Your task to perform on an android device: turn notification dots on Image 0: 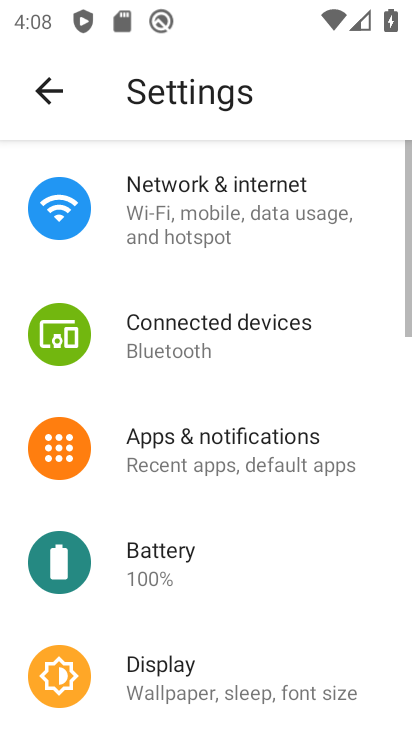
Step 0: click (264, 462)
Your task to perform on an android device: turn notification dots on Image 1: 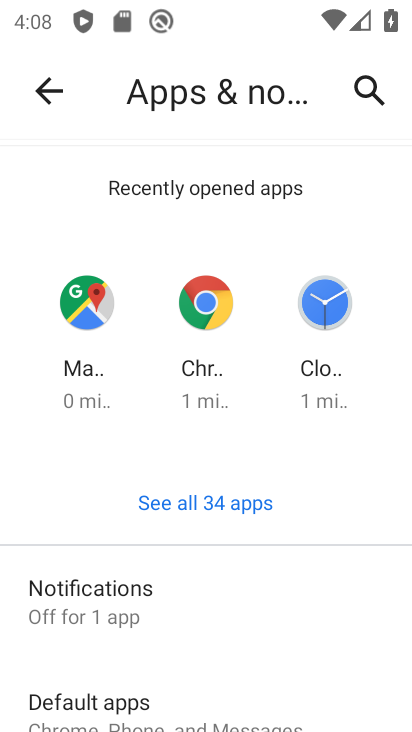
Step 1: click (196, 605)
Your task to perform on an android device: turn notification dots on Image 2: 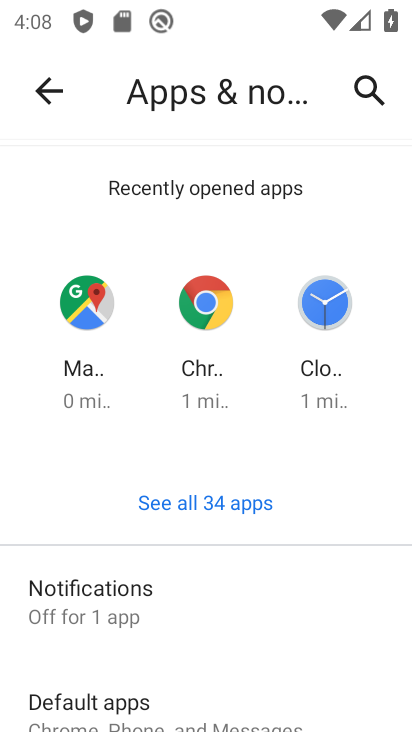
Step 2: drag from (195, 595) to (255, 253)
Your task to perform on an android device: turn notification dots on Image 3: 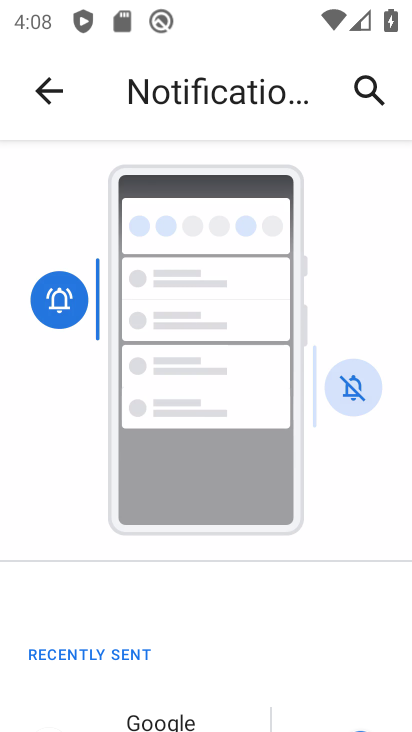
Step 3: drag from (202, 656) to (331, 83)
Your task to perform on an android device: turn notification dots on Image 4: 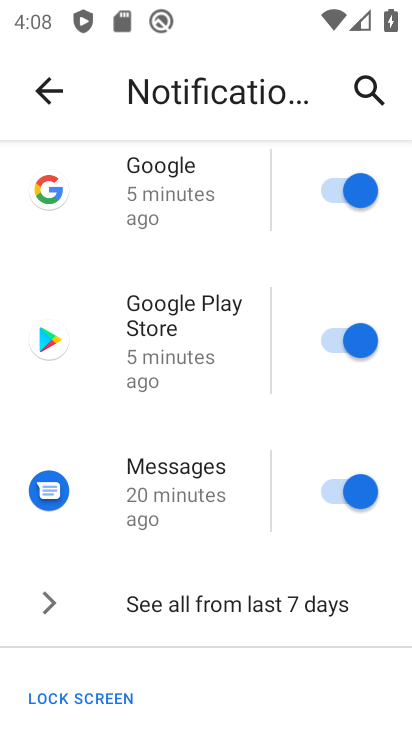
Step 4: drag from (200, 651) to (259, 101)
Your task to perform on an android device: turn notification dots on Image 5: 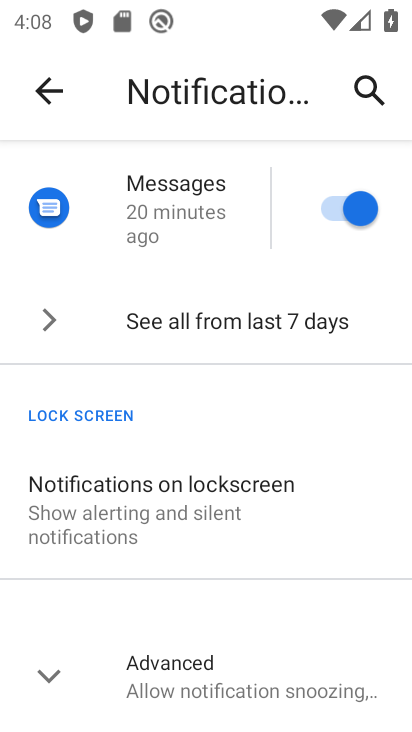
Step 5: drag from (214, 653) to (312, 188)
Your task to perform on an android device: turn notification dots on Image 6: 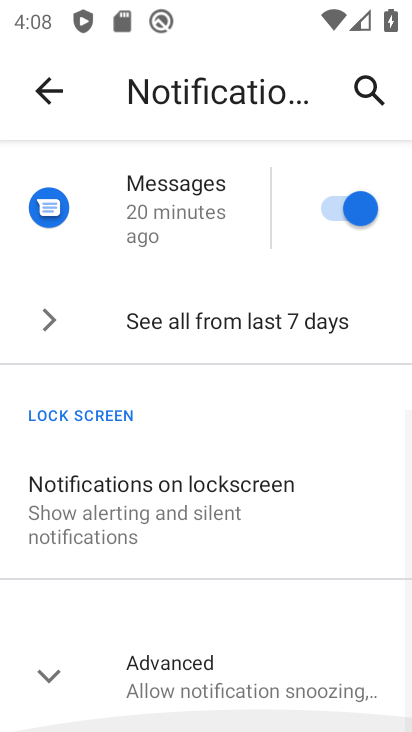
Step 6: click (209, 685)
Your task to perform on an android device: turn notification dots on Image 7: 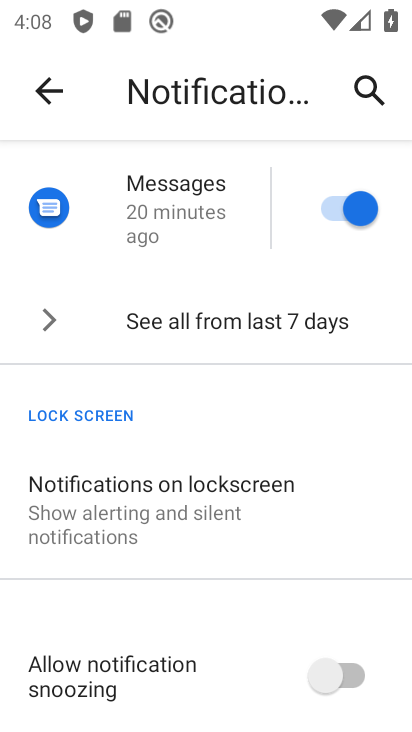
Step 7: task complete